Your task to perform on an android device: Empty the shopping cart on target. Add "razer naga" to the cart on target, then select checkout. Image 0: 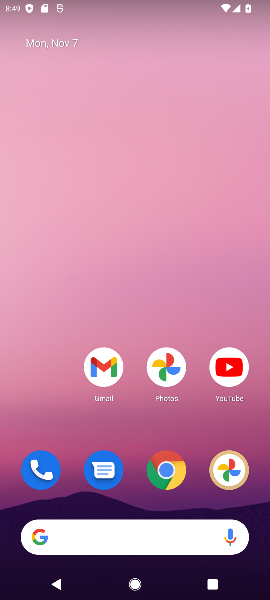
Step 0: click (145, 468)
Your task to perform on an android device: Empty the shopping cart on target. Add "razer naga" to the cart on target, then select checkout. Image 1: 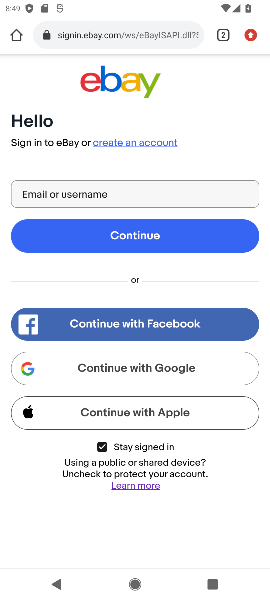
Step 1: click (122, 20)
Your task to perform on an android device: Empty the shopping cart on target. Add "razer naga" to the cart on target, then select checkout. Image 2: 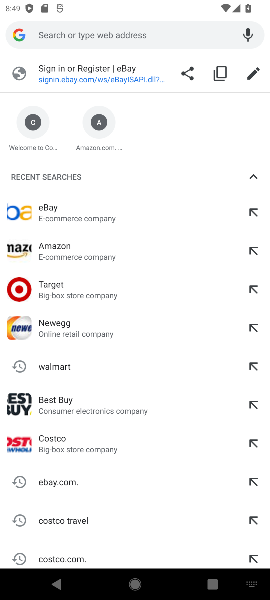
Step 2: click (111, 293)
Your task to perform on an android device: Empty the shopping cart on target. Add "razer naga" to the cart on target, then select checkout. Image 3: 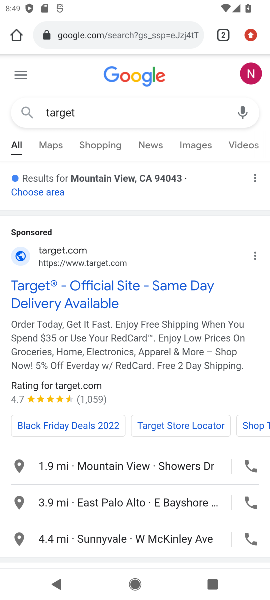
Step 3: drag from (102, 366) to (122, 38)
Your task to perform on an android device: Empty the shopping cart on target. Add "razer naga" to the cart on target, then select checkout. Image 4: 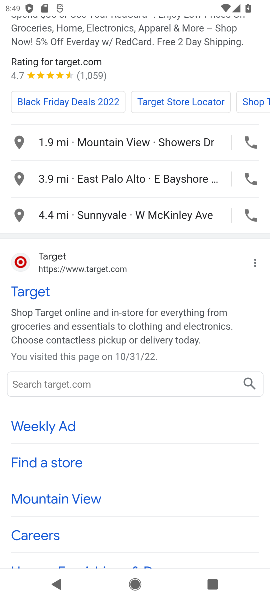
Step 4: click (29, 291)
Your task to perform on an android device: Empty the shopping cart on target. Add "razer naga" to the cart on target, then select checkout. Image 5: 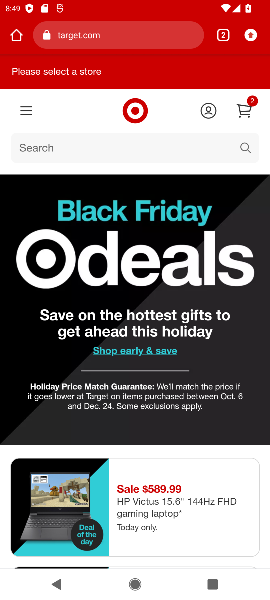
Step 5: click (54, 145)
Your task to perform on an android device: Empty the shopping cart on target. Add "razer naga" to the cart on target, then select checkout. Image 6: 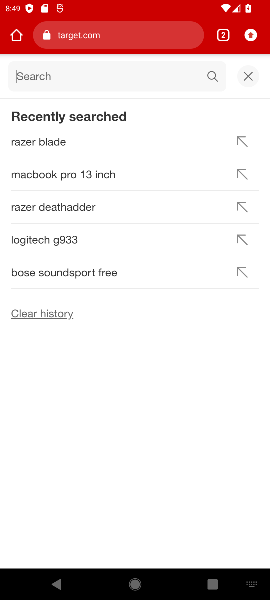
Step 6: press back button
Your task to perform on an android device: Empty the shopping cart on target. Add "razer naga" to the cart on target, then select checkout. Image 7: 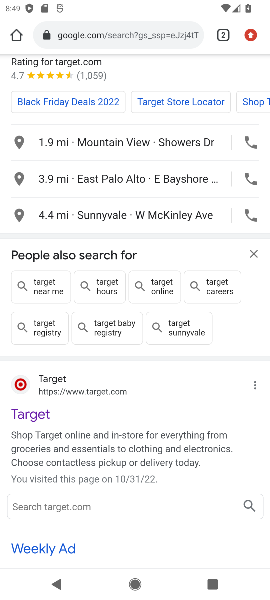
Step 7: click (13, 419)
Your task to perform on an android device: Empty the shopping cart on target. Add "razer naga" to the cart on target, then select checkout. Image 8: 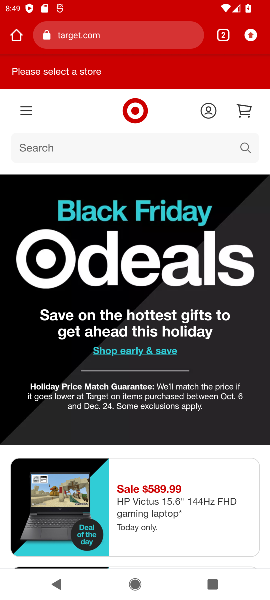
Step 8: click (250, 117)
Your task to perform on an android device: Empty the shopping cart on target. Add "razer naga" to the cart on target, then select checkout. Image 9: 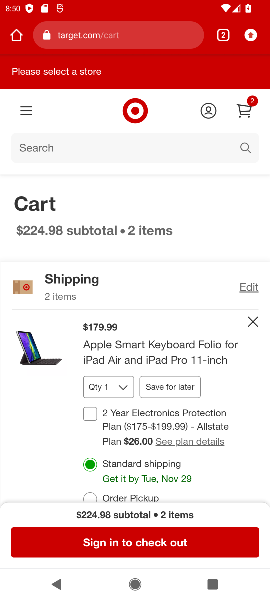
Step 9: click (249, 323)
Your task to perform on an android device: Empty the shopping cart on target. Add "razer naga" to the cart on target, then select checkout. Image 10: 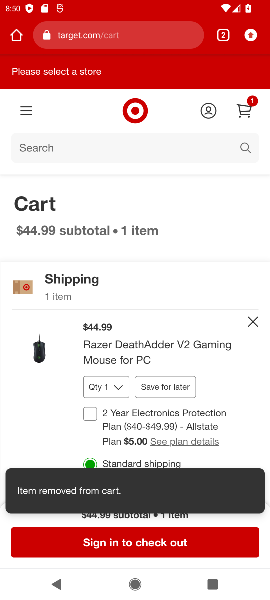
Step 10: click (249, 323)
Your task to perform on an android device: Empty the shopping cart on target. Add "razer naga" to the cart on target, then select checkout. Image 11: 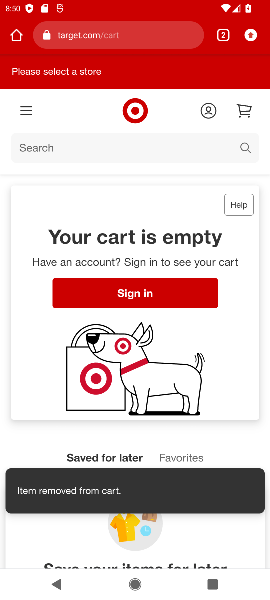
Step 11: click (117, 151)
Your task to perform on an android device: Empty the shopping cart on target. Add "razer naga" to the cart on target, then select checkout. Image 12: 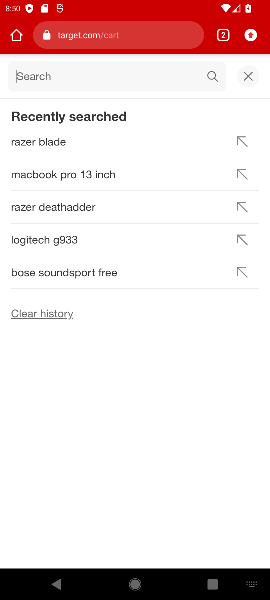
Step 12: type "razer naga"
Your task to perform on an android device: Empty the shopping cart on target. Add "razer naga" to the cart on target, then select checkout. Image 13: 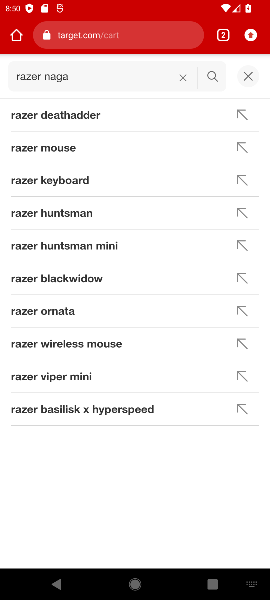
Step 13: click (212, 68)
Your task to perform on an android device: Empty the shopping cart on target. Add "razer naga" to the cart on target, then select checkout. Image 14: 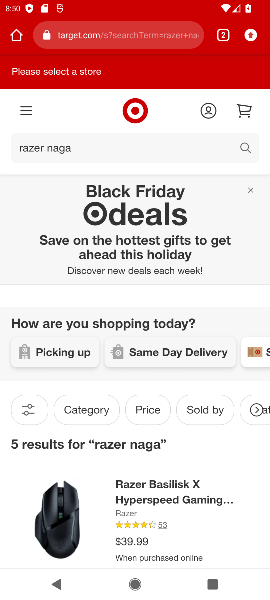
Step 14: drag from (113, 472) to (131, 115)
Your task to perform on an android device: Empty the shopping cart on target. Add "razer naga" to the cart on target, then select checkout. Image 15: 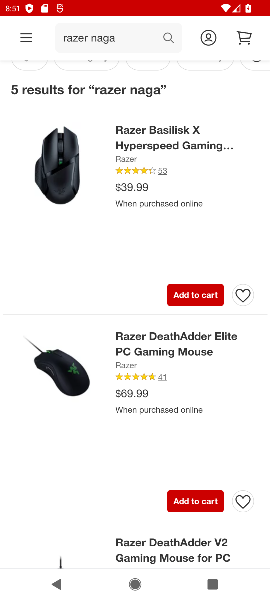
Step 15: click (179, 299)
Your task to perform on an android device: Empty the shopping cart on target. Add "razer naga" to the cart on target, then select checkout. Image 16: 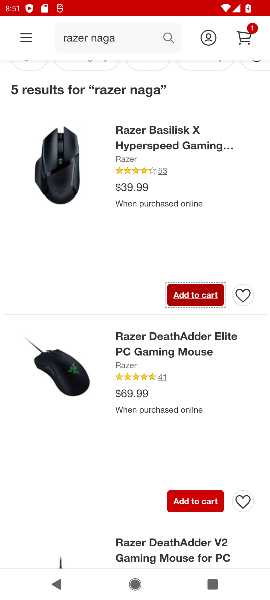
Step 16: click (239, 46)
Your task to perform on an android device: Empty the shopping cart on target. Add "razer naga" to the cart on target, then select checkout. Image 17: 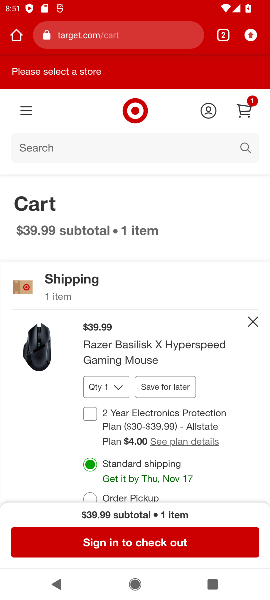
Step 17: task complete